Your task to perform on an android device: Go to location settings Image 0: 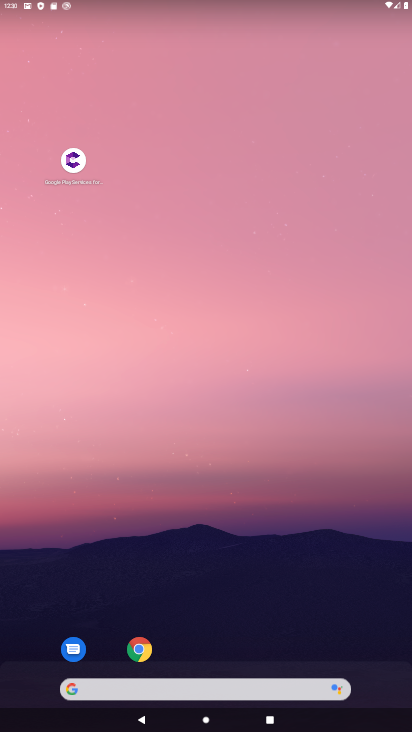
Step 0: drag from (295, 610) to (312, 154)
Your task to perform on an android device: Go to location settings Image 1: 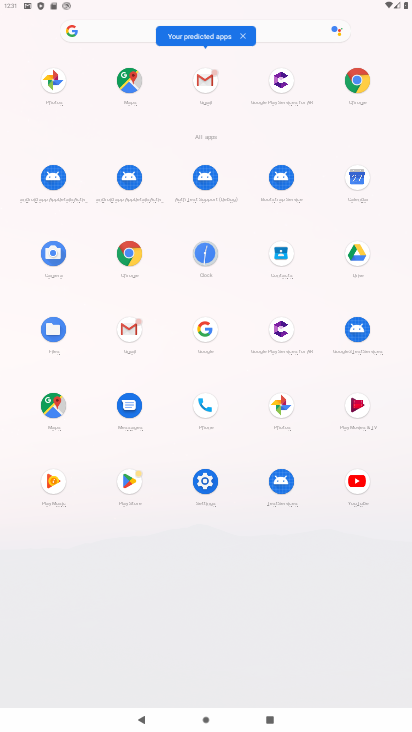
Step 1: click (203, 478)
Your task to perform on an android device: Go to location settings Image 2: 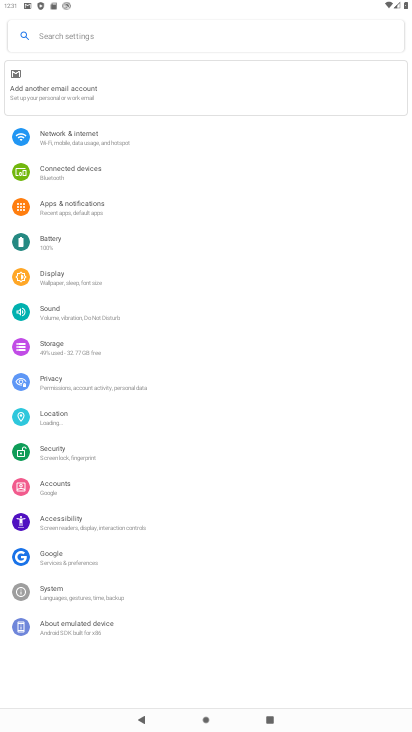
Step 2: click (76, 416)
Your task to perform on an android device: Go to location settings Image 3: 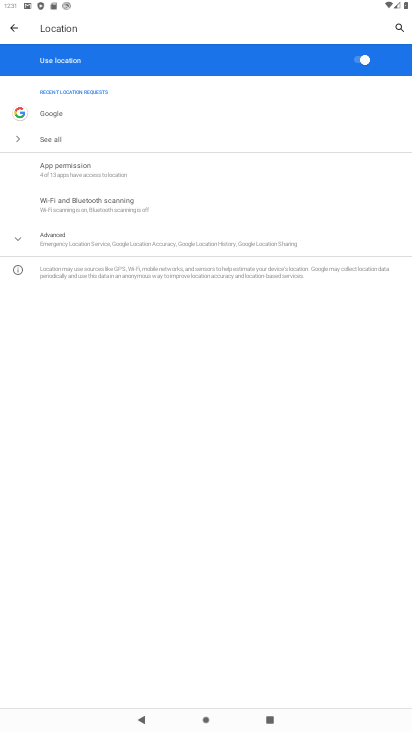
Step 3: task complete